Your task to perform on an android device: Go to display settings Image 0: 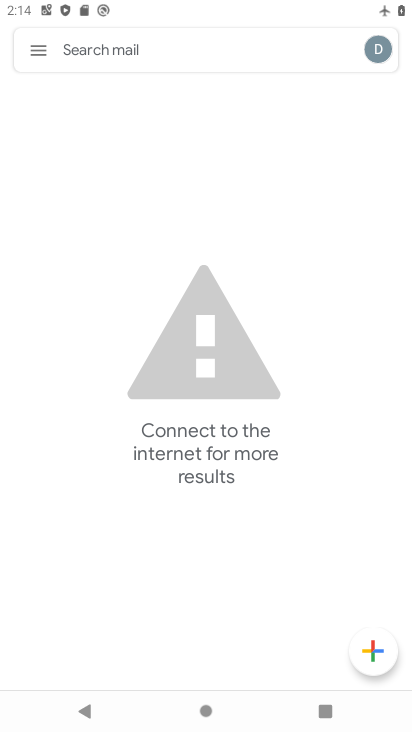
Step 0: press home button
Your task to perform on an android device: Go to display settings Image 1: 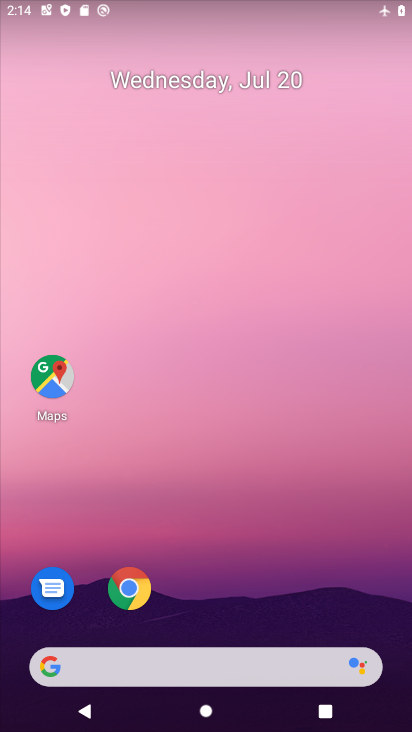
Step 1: drag from (286, 601) to (258, 31)
Your task to perform on an android device: Go to display settings Image 2: 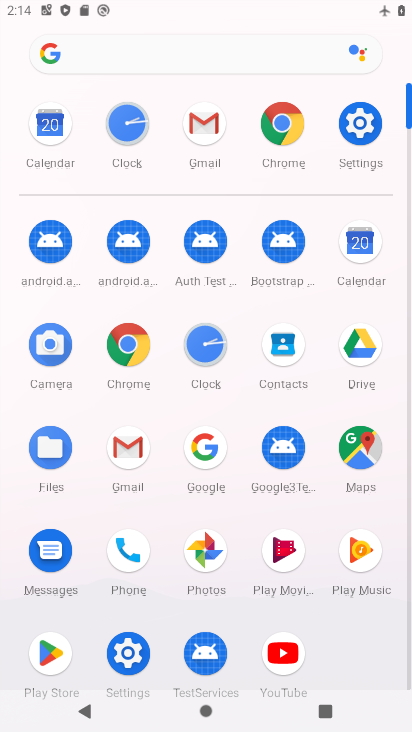
Step 2: click (341, 136)
Your task to perform on an android device: Go to display settings Image 3: 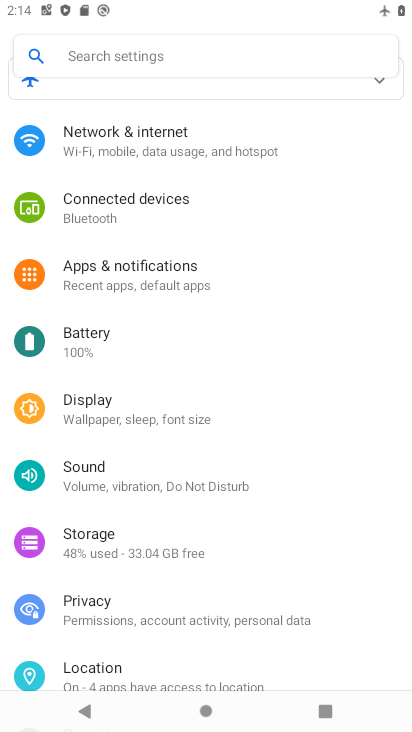
Step 3: click (160, 422)
Your task to perform on an android device: Go to display settings Image 4: 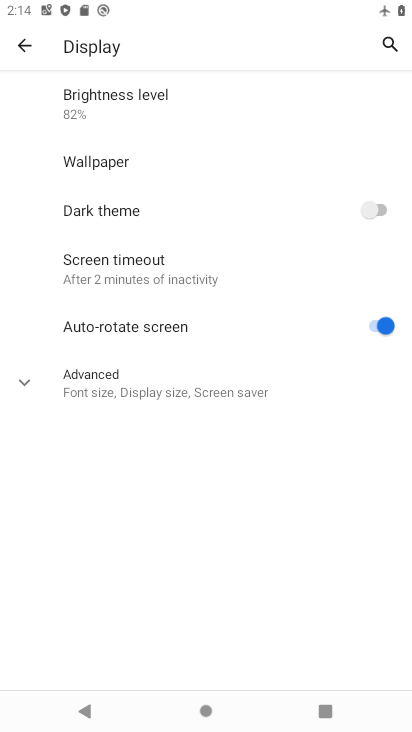
Step 4: task complete